Your task to perform on an android device: change the clock display to digital Image 0: 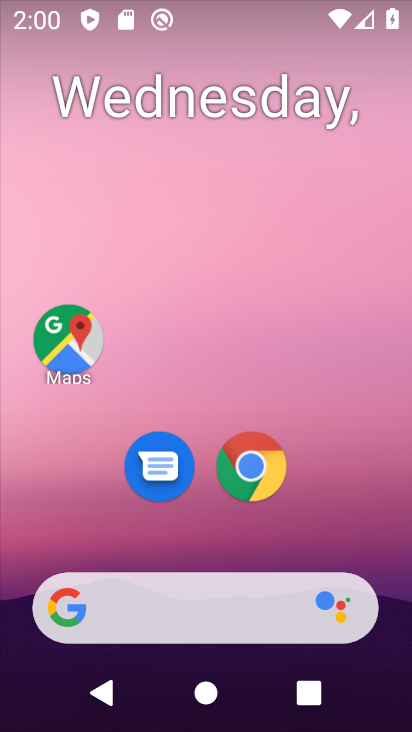
Step 0: drag from (317, 536) to (332, 115)
Your task to perform on an android device: change the clock display to digital Image 1: 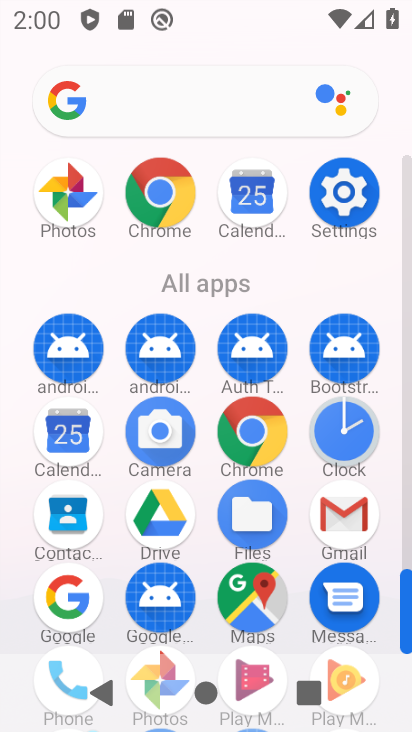
Step 1: click (347, 457)
Your task to perform on an android device: change the clock display to digital Image 2: 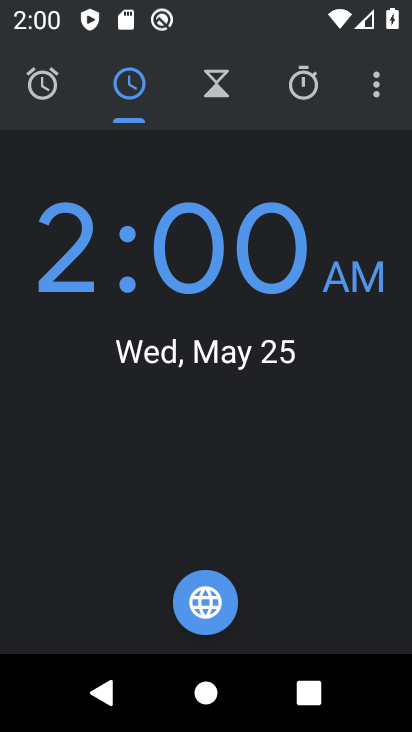
Step 2: click (373, 92)
Your task to perform on an android device: change the clock display to digital Image 3: 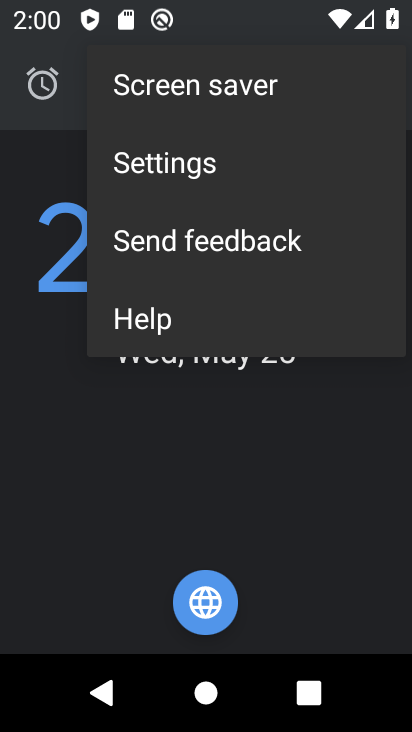
Step 3: click (201, 167)
Your task to perform on an android device: change the clock display to digital Image 4: 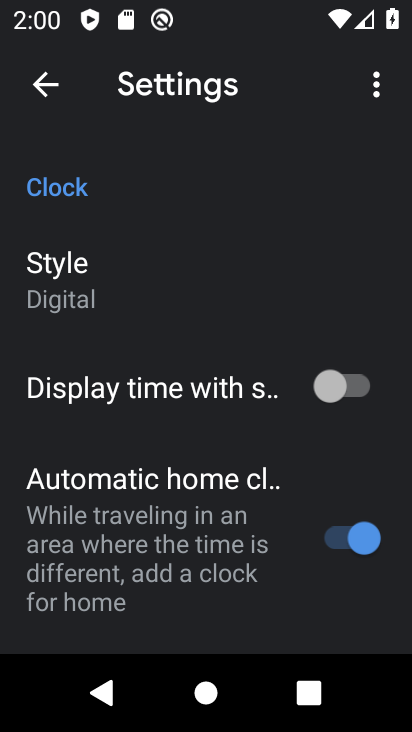
Step 4: task complete